Your task to perform on an android device: turn on showing notifications on the lock screen Image 0: 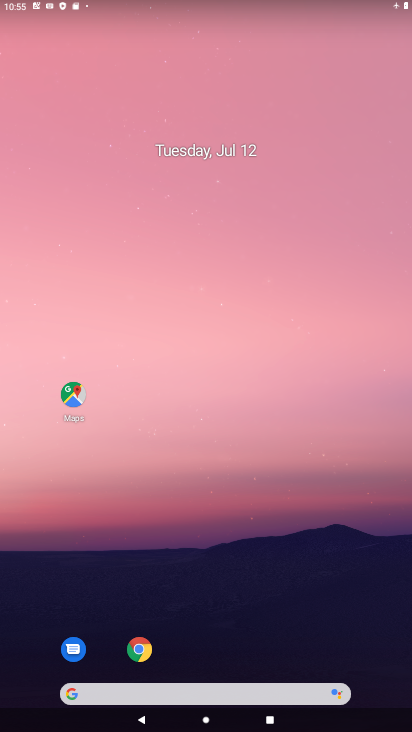
Step 0: drag from (343, 652) to (342, 205)
Your task to perform on an android device: turn on showing notifications on the lock screen Image 1: 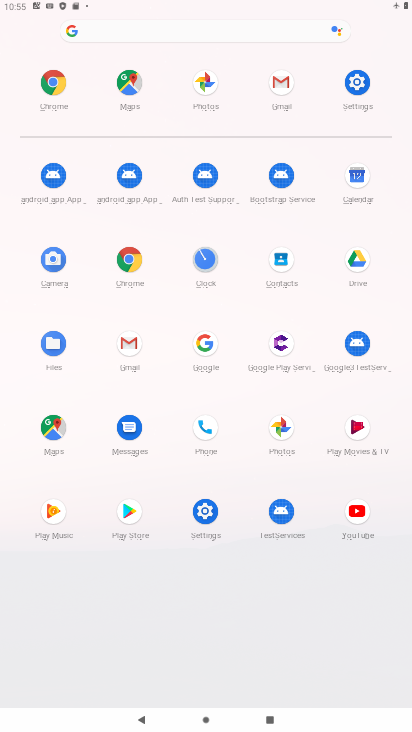
Step 1: click (204, 512)
Your task to perform on an android device: turn on showing notifications on the lock screen Image 2: 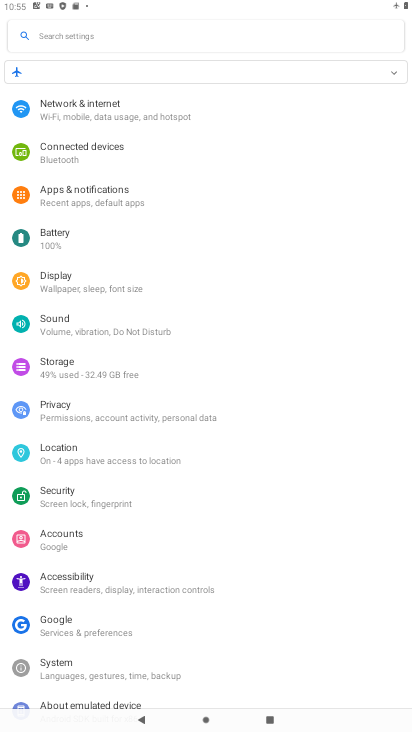
Step 2: click (73, 192)
Your task to perform on an android device: turn on showing notifications on the lock screen Image 3: 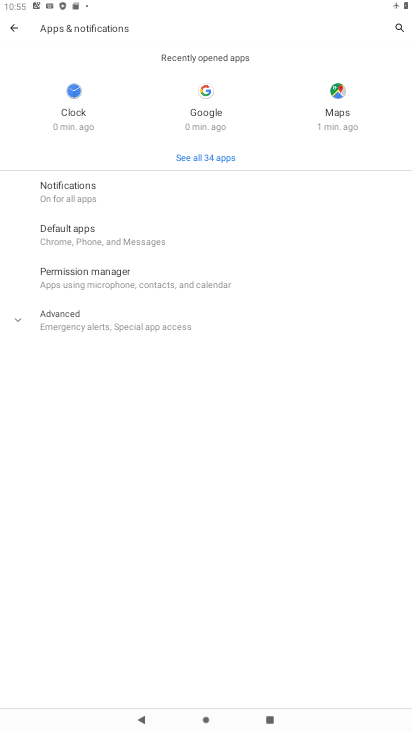
Step 3: click (76, 205)
Your task to perform on an android device: turn on showing notifications on the lock screen Image 4: 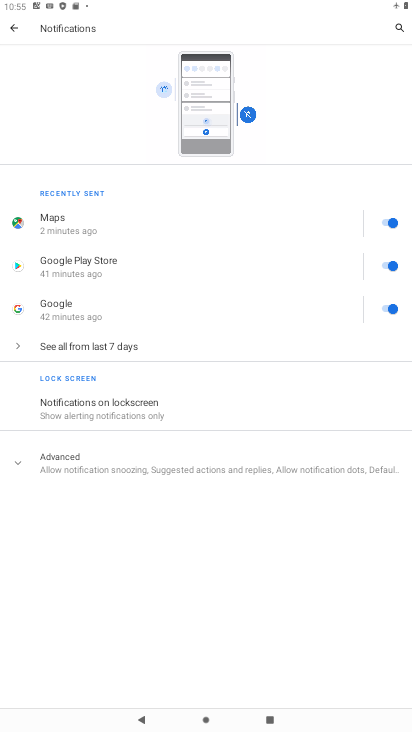
Step 4: click (73, 403)
Your task to perform on an android device: turn on showing notifications on the lock screen Image 5: 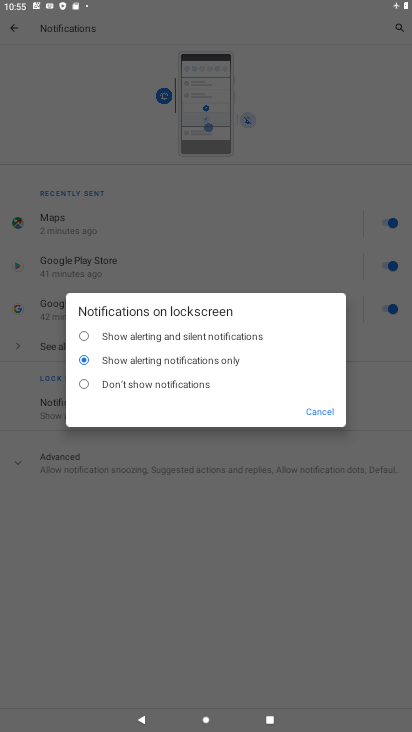
Step 5: task complete